Your task to perform on an android device: Do I have any events this weekend? Image 0: 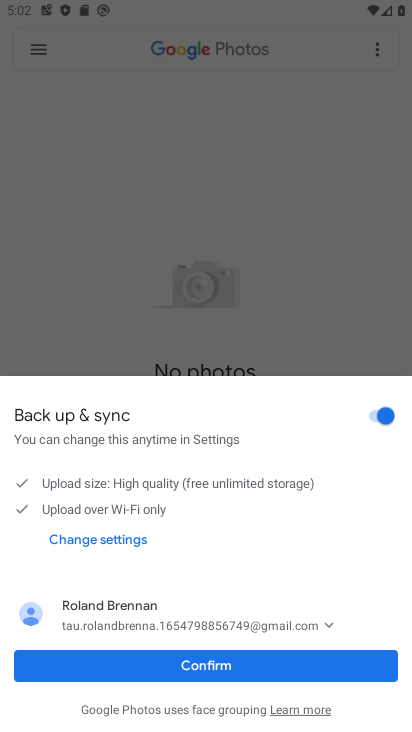
Step 0: click (233, 669)
Your task to perform on an android device: Do I have any events this weekend? Image 1: 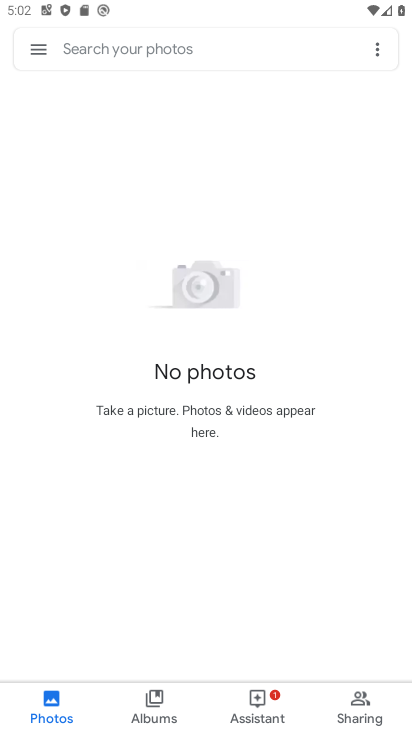
Step 1: press home button
Your task to perform on an android device: Do I have any events this weekend? Image 2: 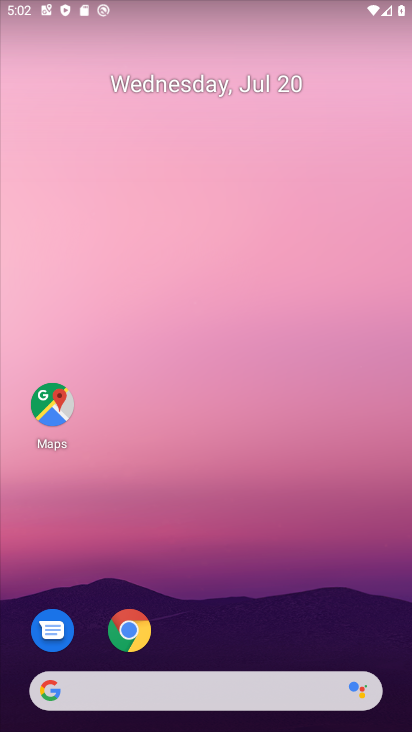
Step 2: drag from (215, 642) to (244, 230)
Your task to perform on an android device: Do I have any events this weekend? Image 3: 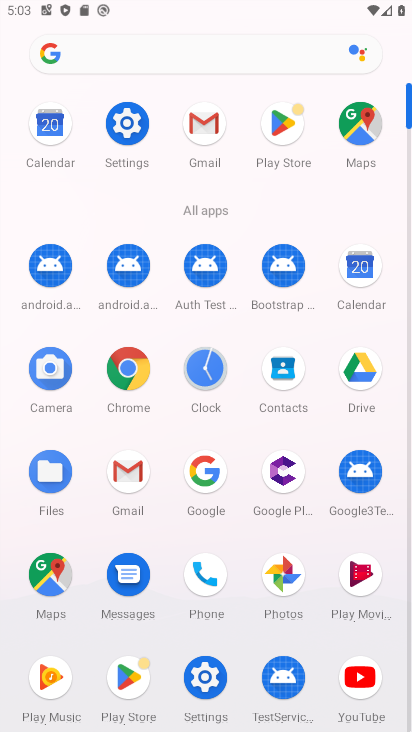
Step 3: click (352, 281)
Your task to perform on an android device: Do I have any events this weekend? Image 4: 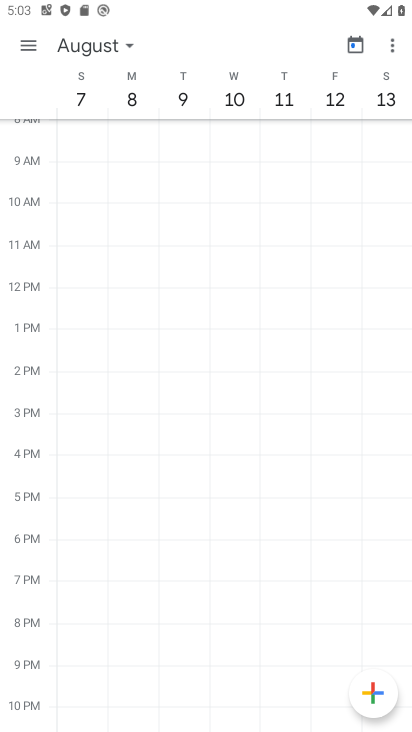
Step 4: click (123, 45)
Your task to perform on an android device: Do I have any events this weekend? Image 5: 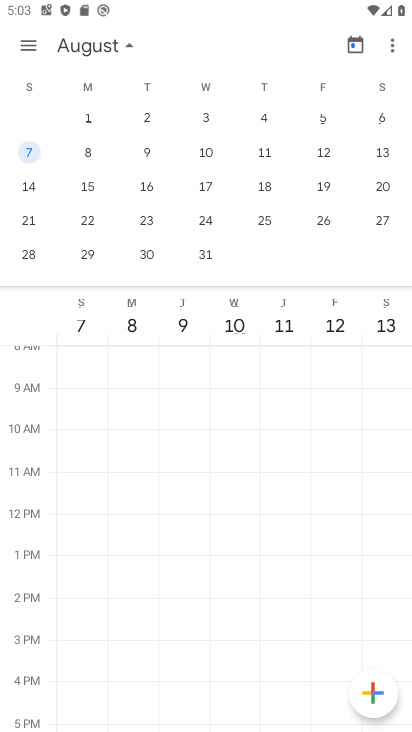
Step 5: task complete